Your task to perform on an android device: toggle show notifications on the lock screen Image 0: 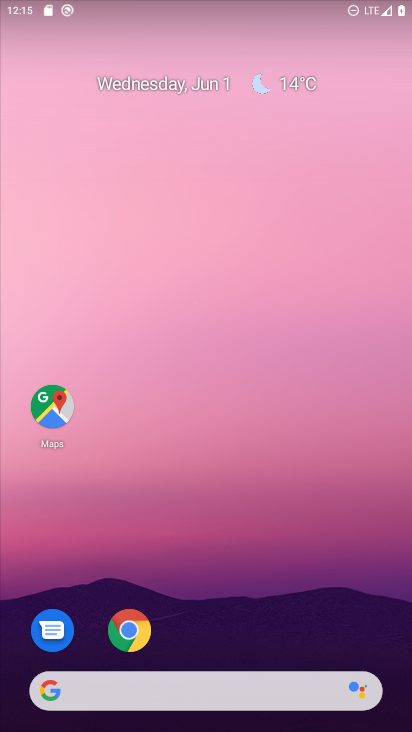
Step 0: drag from (209, 486) to (250, 27)
Your task to perform on an android device: toggle show notifications on the lock screen Image 1: 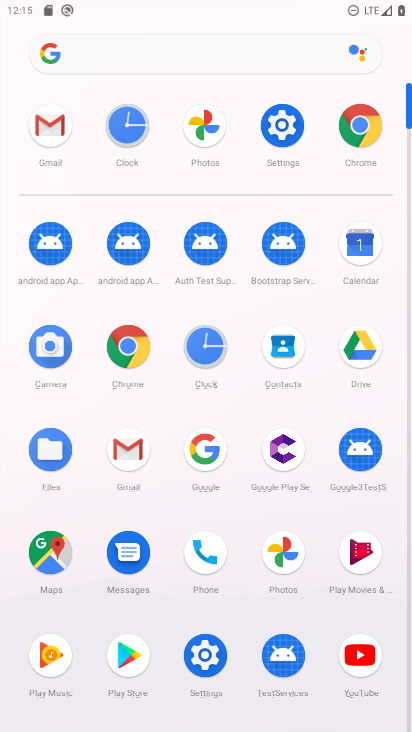
Step 1: click (280, 117)
Your task to perform on an android device: toggle show notifications on the lock screen Image 2: 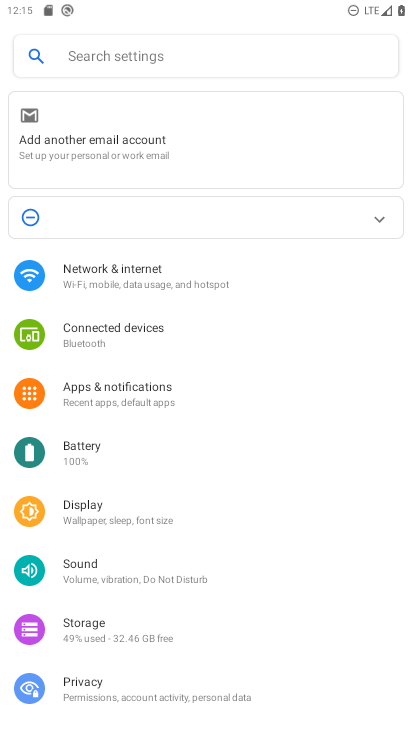
Step 2: drag from (190, 560) to (220, 132)
Your task to perform on an android device: toggle show notifications on the lock screen Image 3: 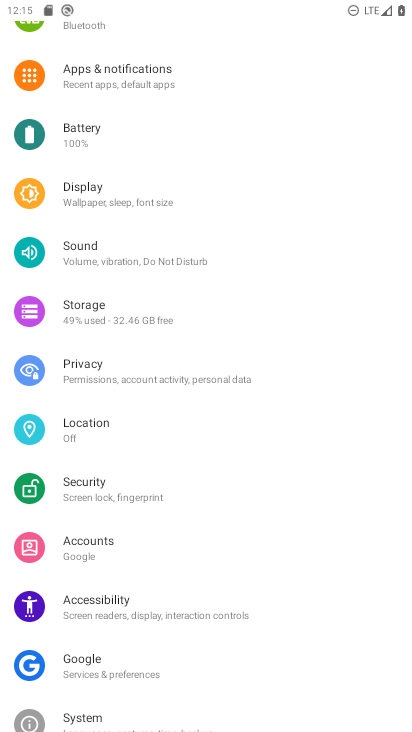
Step 3: click (127, 80)
Your task to perform on an android device: toggle show notifications on the lock screen Image 4: 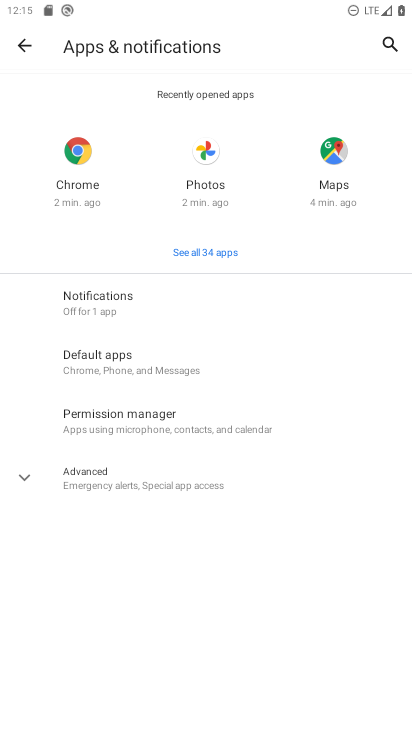
Step 4: click (127, 301)
Your task to perform on an android device: toggle show notifications on the lock screen Image 5: 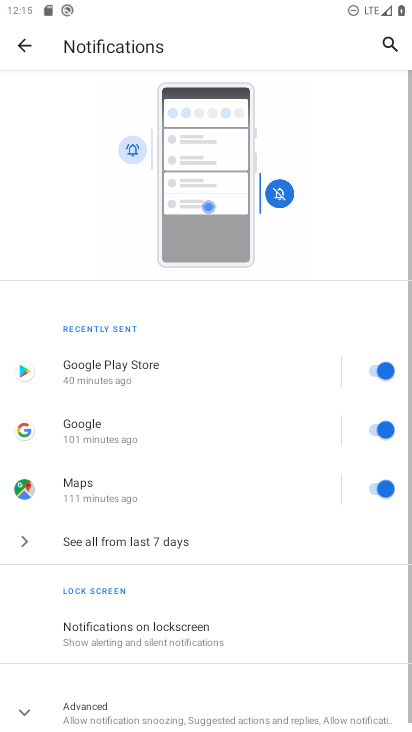
Step 5: drag from (188, 603) to (219, 219)
Your task to perform on an android device: toggle show notifications on the lock screen Image 6: 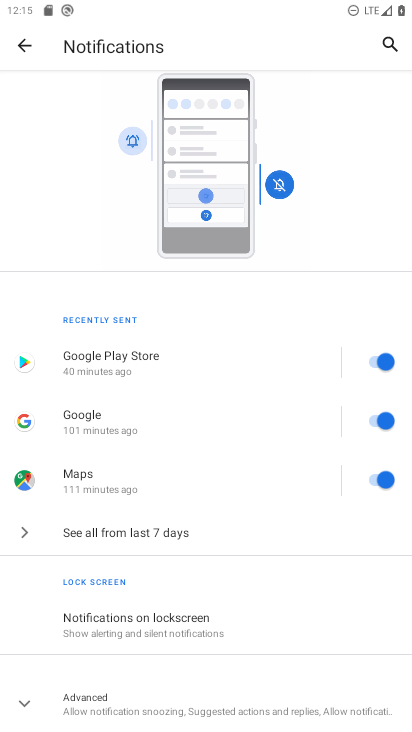
Step 6: click (122, 623)
Your task to perform on an android device: toggle show notifications on the lock screen Image 7: 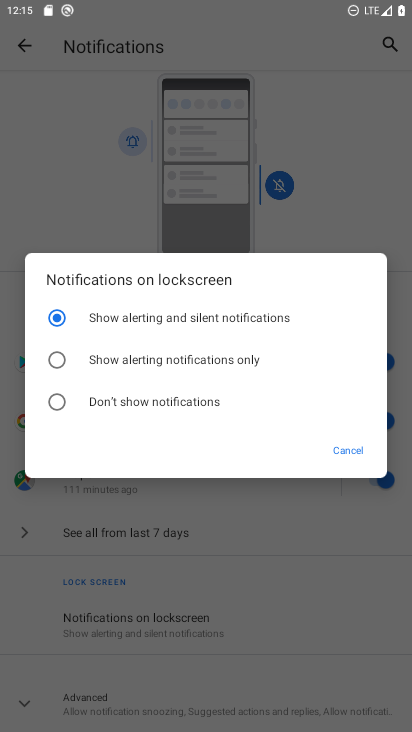
Step 7: click (142, 405)
Your task to perform on an android device: toggle show notifications on the lock screen Image 8: 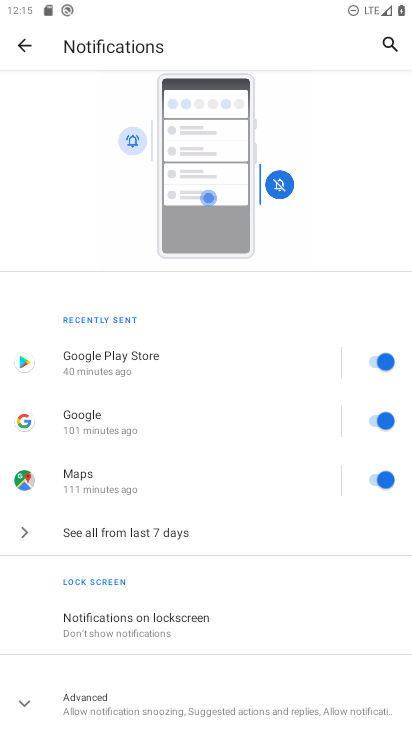
Step 8: task complete